Your task to perform on an android device: delete a single message in the gmail app Image 0: 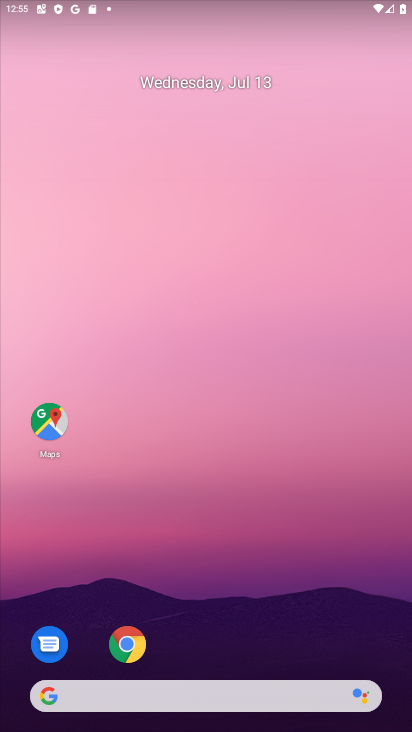
Step 0: drag from (279, 621) to (232, 145)
Your task to perform on an android device: delete a single message in the gmail app Image 1: 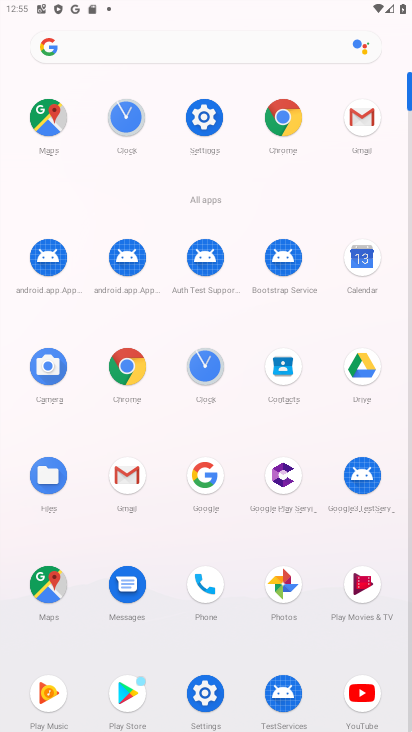
Step 1: click (360, 107)
Your task to perform on an android device: delete a single message in the gmail app Image 2: 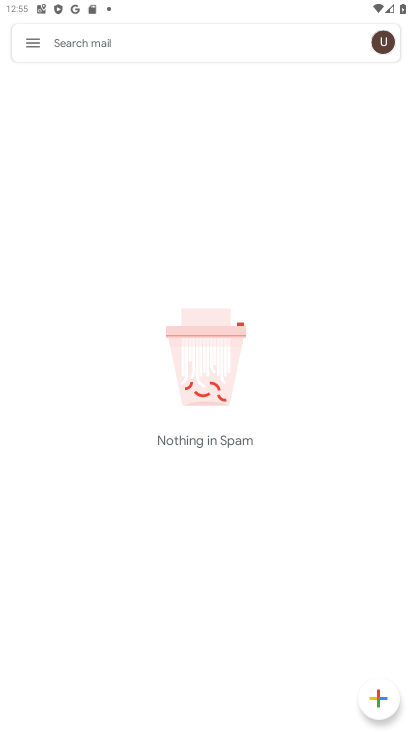
Step 2: click (30, 40)
Your task to perform on an android device: delete a single message in the gmail app Image 3: 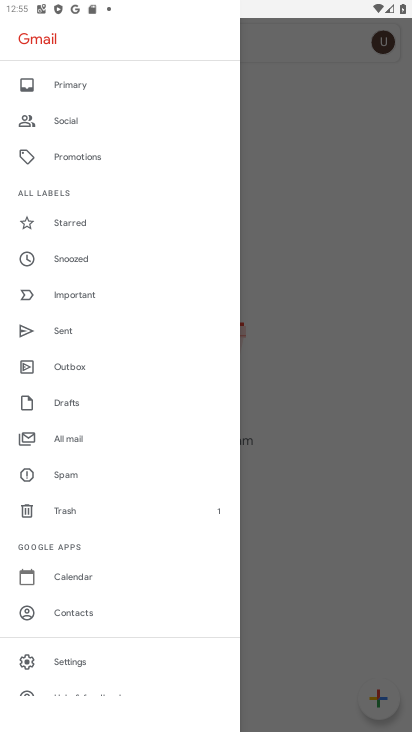
Step 3: click (81, 444)
Your task to perform on an android device: delete a single message in the gmail app Image 4: 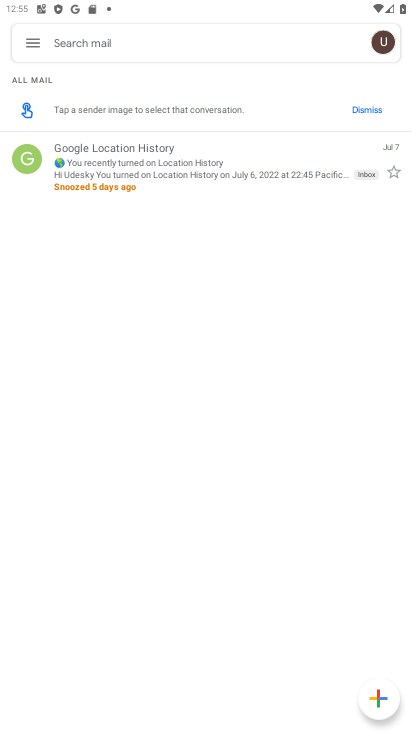
Step 4: click (157, 161)
Your task to perform on an android device: delete a single message in the gmail app Image 5: 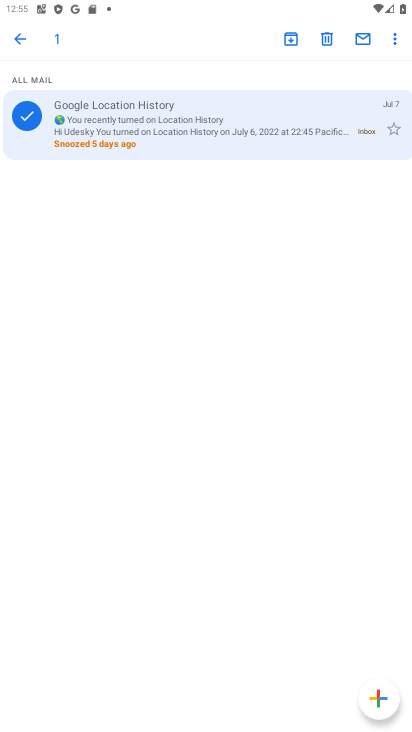
Step 5: click (328, 32)
Your task to perform on an android device: delete a single message in the gmail app Image 6: 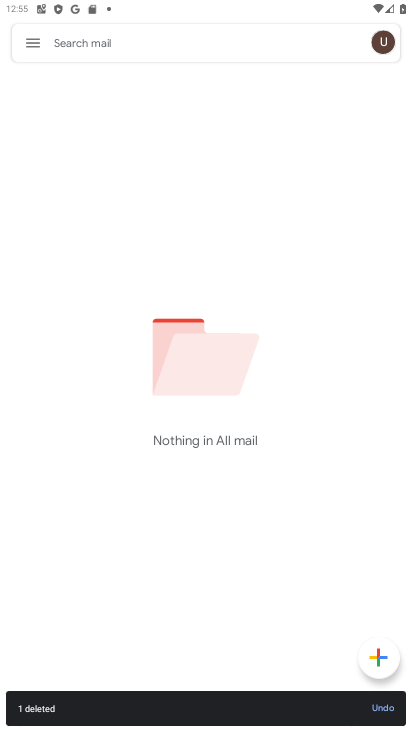
Step 6: task complete